Your task to perform on an android device: Open Yahoo.com Image 0: 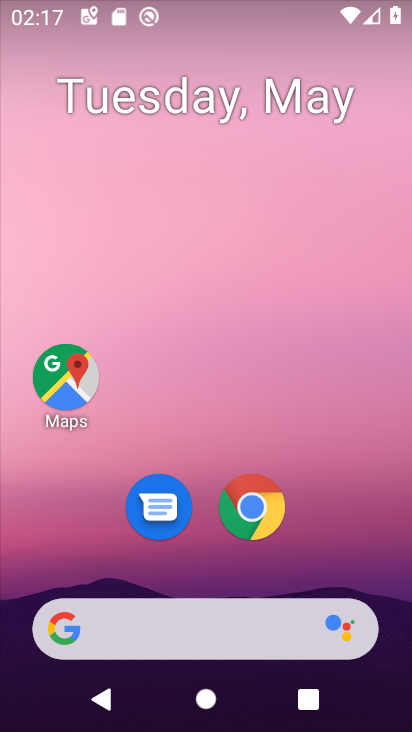
Step 0: click (256, 533)
Your task to perform on an android device: Open Yahoo.com Image 1: 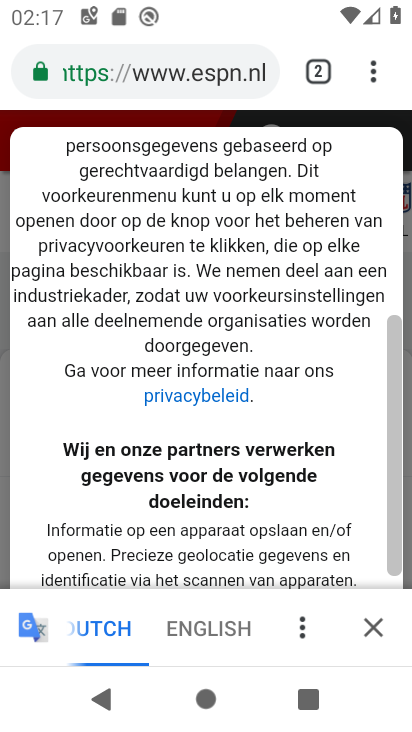
Step 1: click (329, 60)
Your task to perform on an android device: Open Yahoo.com Image 2: 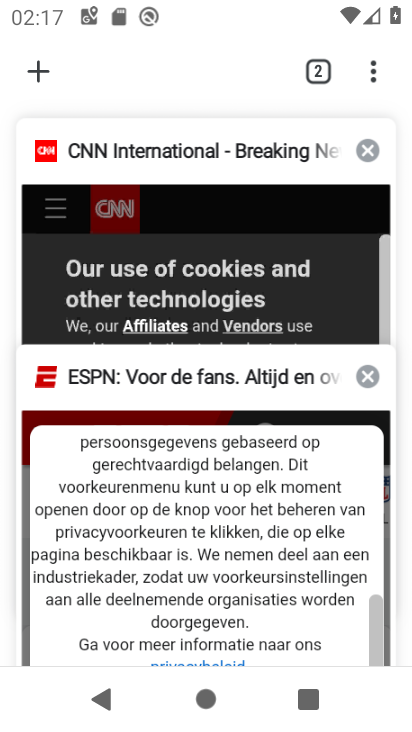
Step 2: click (28, 81)
Your task to perform on an android device: Open Yahoo.com Image 3: 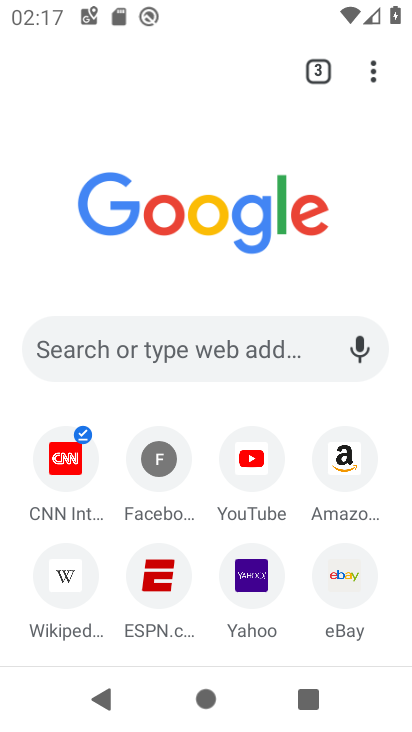
Step 3: click (233, 596)
Your task to perform on an android device: Open Yahoo.com Image 4: 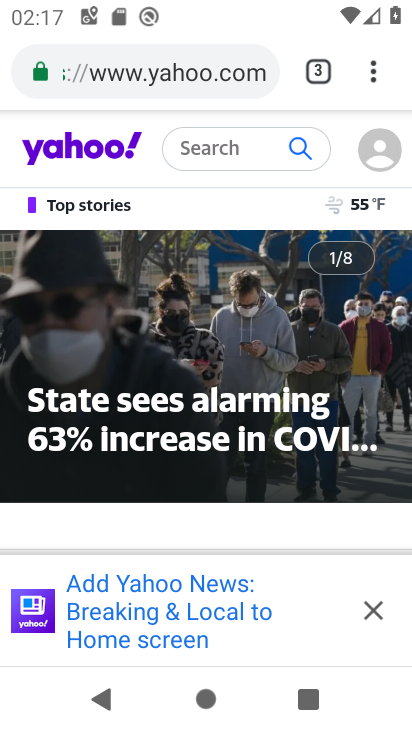
Step 4: task complete